Your task to perform on an android device: turn vacation reply on in the gmail app Image 0: 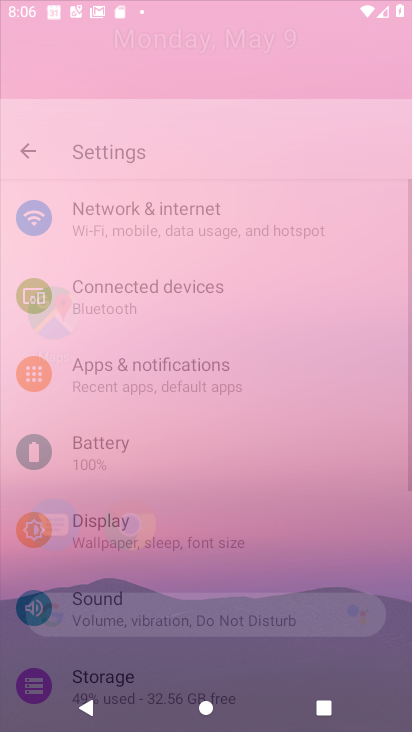
Step 0: click (220, 268)
Your task to perform on an android device: turn vacation reply on in the gmail app Image 1: 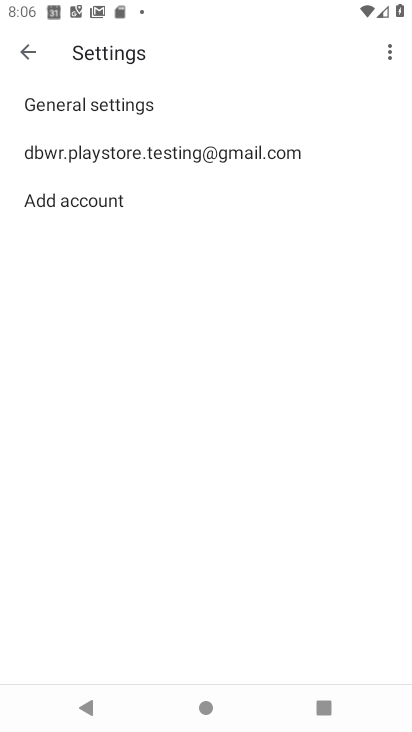
Step 1: click (119, 160)
Your task to perform on an android device: turn vacation reply on in the gmail app Image 2: 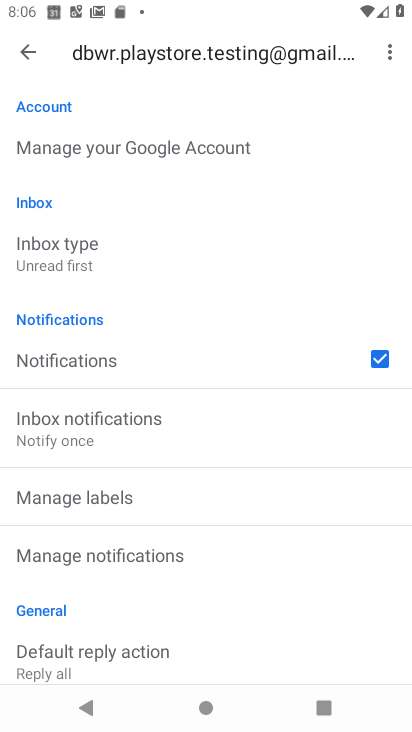
Step 2: task complete